Your task to perform on an android device: Open Yahoo.com Image 0: 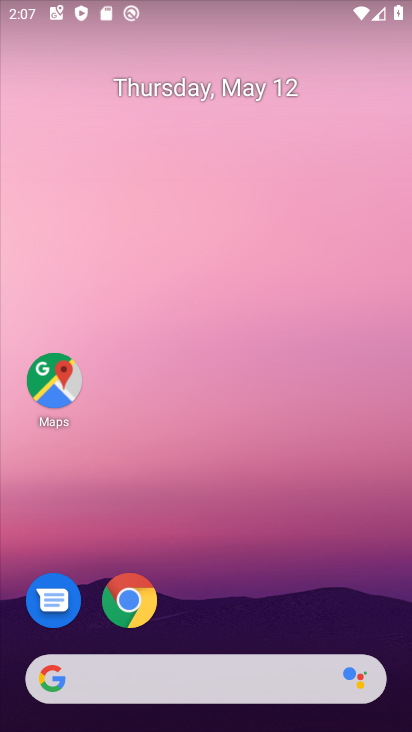
Step 0: click (146, 596)
Your task to perform on an android device: Open Yahoo.com Image 1: 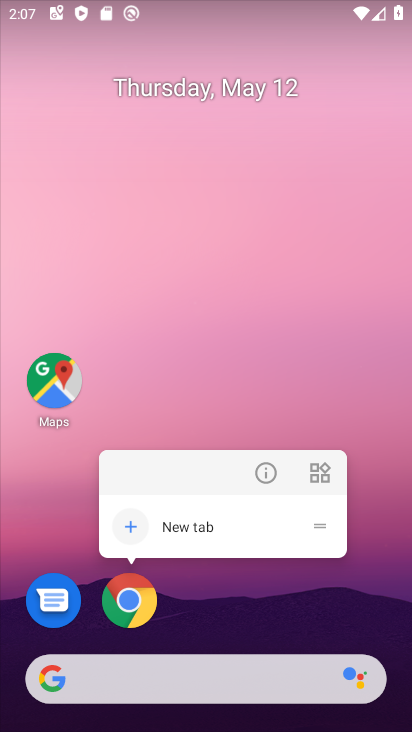
Step 1: click (146, 596)
Your task to perform on an android device: Open Yahoo.com Image 2: 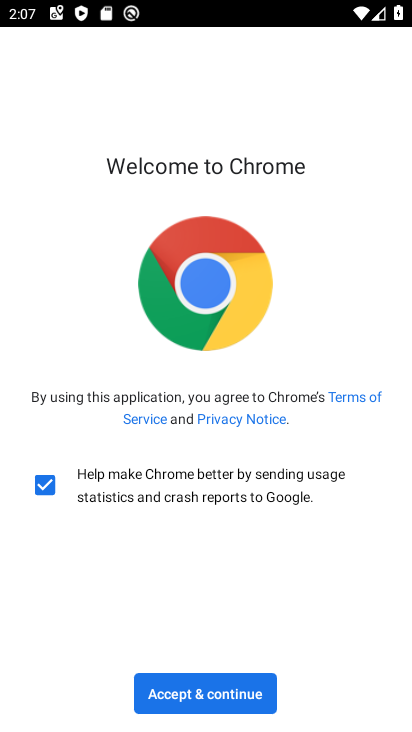
Step 2: click (225, 684)
Your task to perform on an android device: Open Yahoo.com Image 3: 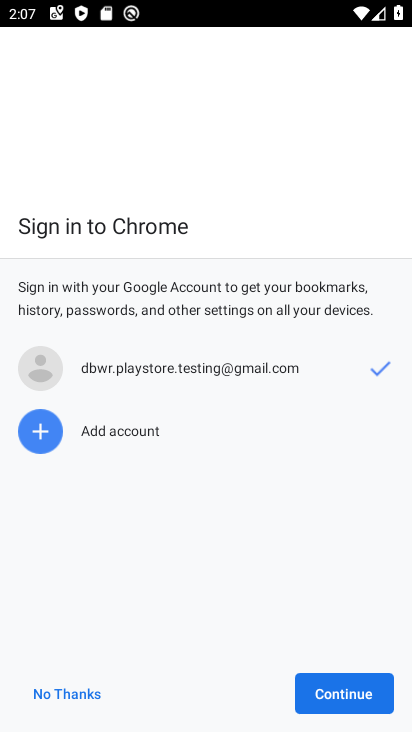
Step 3: click (336, 682)
Your task to perform on an android device: Open Yahoo.com Image 4: 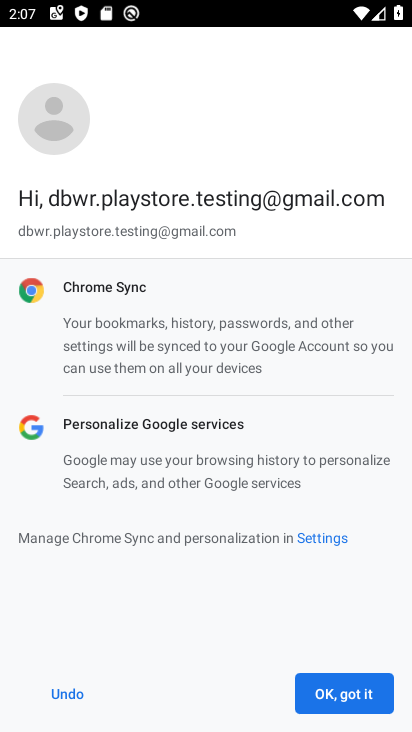
Step 4: click (333, 682)
Your task to perform on an android device: Open Yahoo.com Image 5: 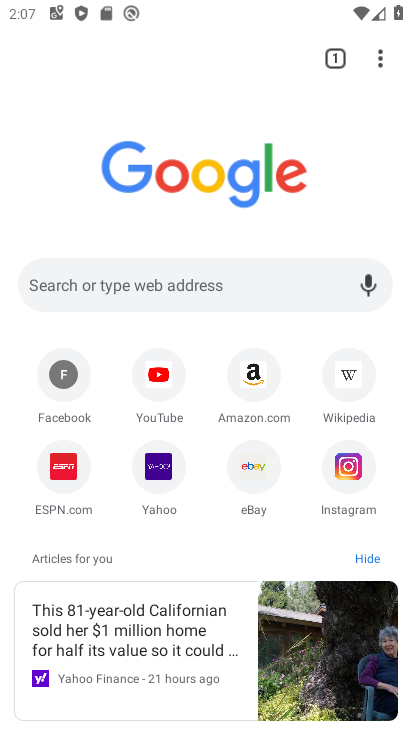
Step 5: click (147, 480)
Your task to perform on an android device: Open Yahoo.com Image 6: 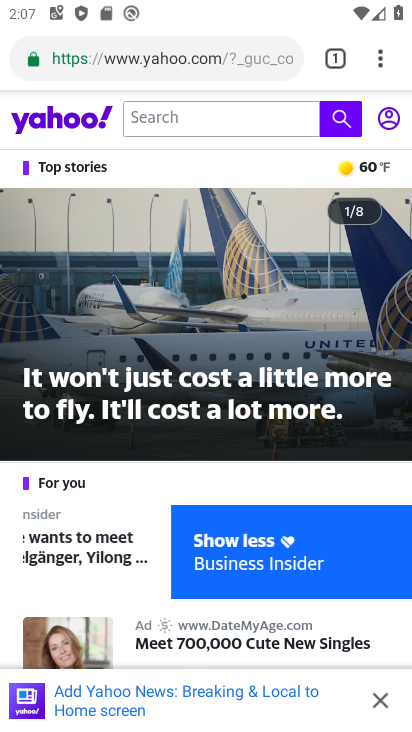
Step 6: task complete